Your task to perform on an android device: Open Yahoo.com Image 0: 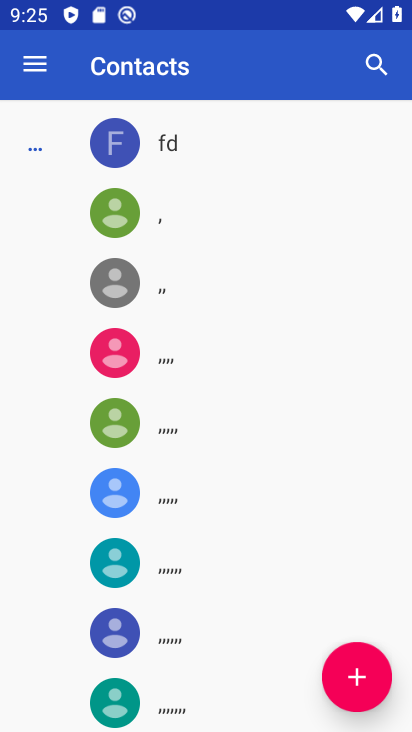
Step 0: press home button
Your task to perform on an android device: Open Yahoo.com Image 1: 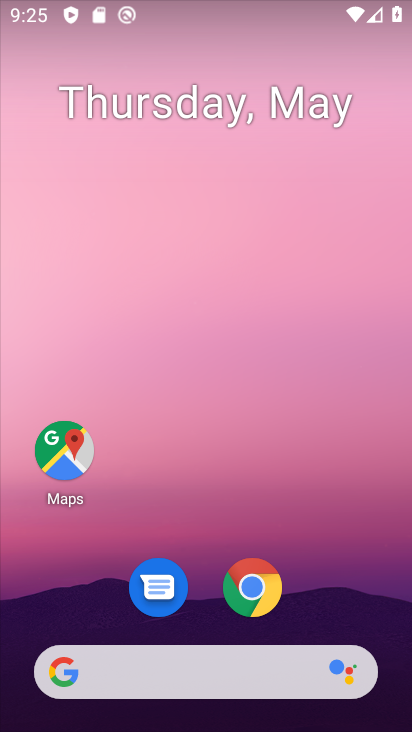
Step 1: click (257, 589)
Your task to perform on an android device: Open Yahoo.com Image 2: 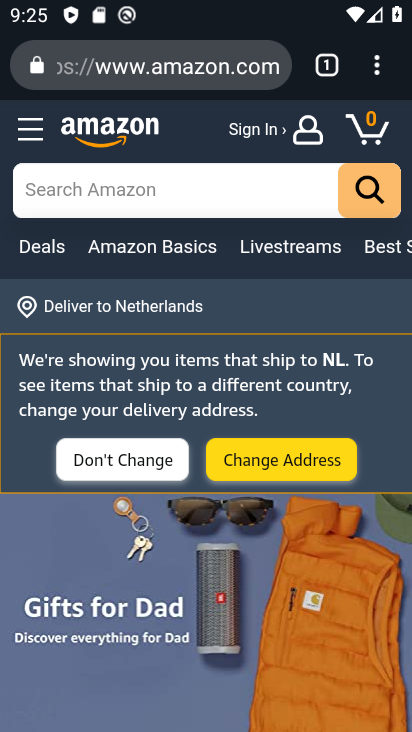
Step 2: click (338, 62)
Your task to perform on an android device: Open Yahoo.com Image 3: 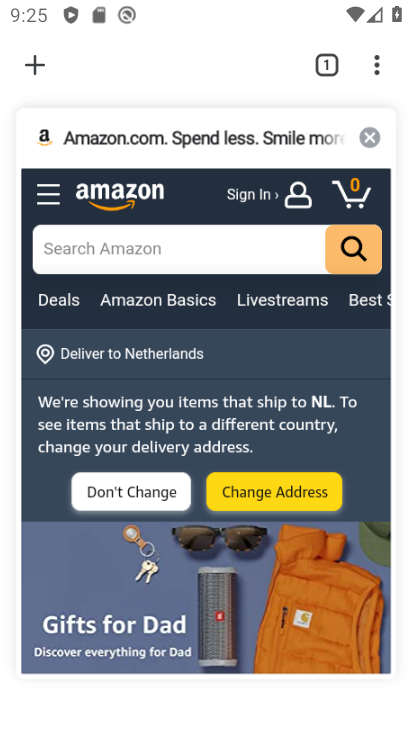
Step 3: click (36, 57)
Your task to perform on an android device: Open Yahoo.com Image 4: 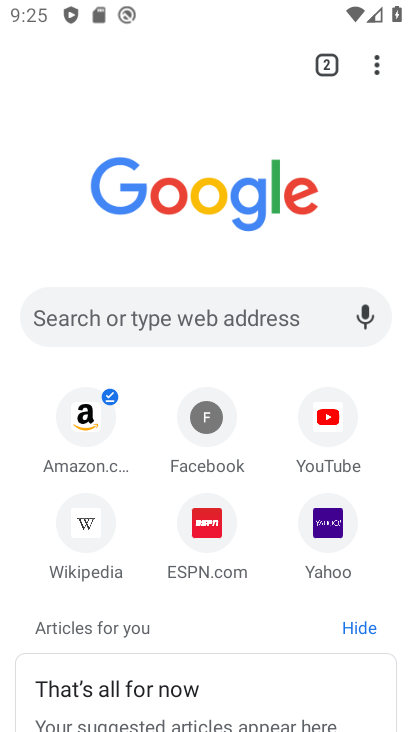
Step 4: click (326, 522)
Your task to perform on an android device: Open Yahoo.com Image 5: 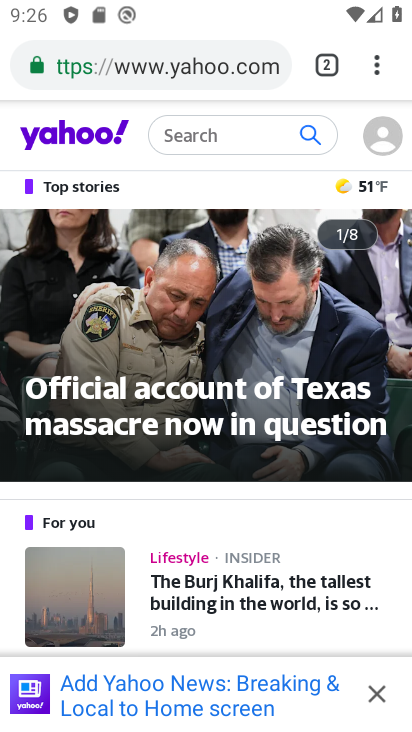
Step 5: task complete